Your task to perform on an android device: Go to internet settings Image 0: 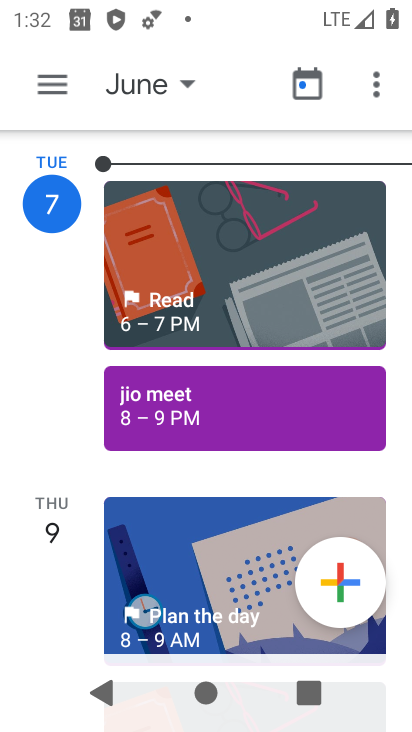
Step 0: press back button
Your task to perform on an android device: Go to internet settings Image 1: 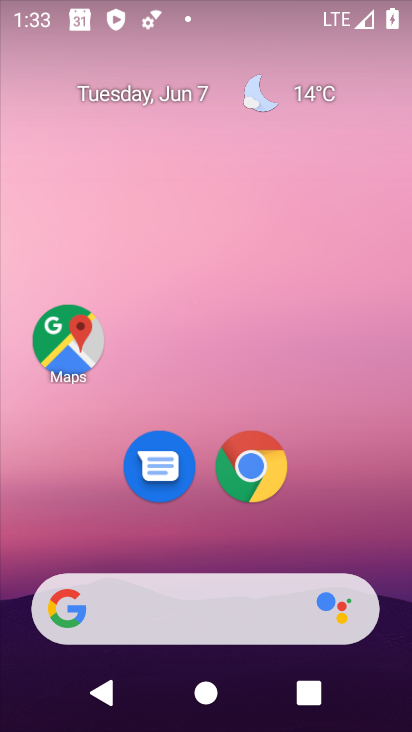
Step 1: drag from (165, 586) to (194, 90)
Your task to perform on an android device: Go to internet settings Image 2: 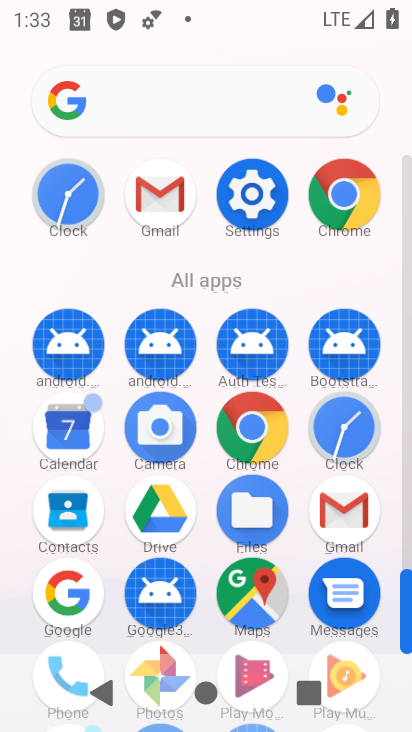
Step 2: click (258, 176)
Your task to perform on an android device: Go to internet settings Image 3: 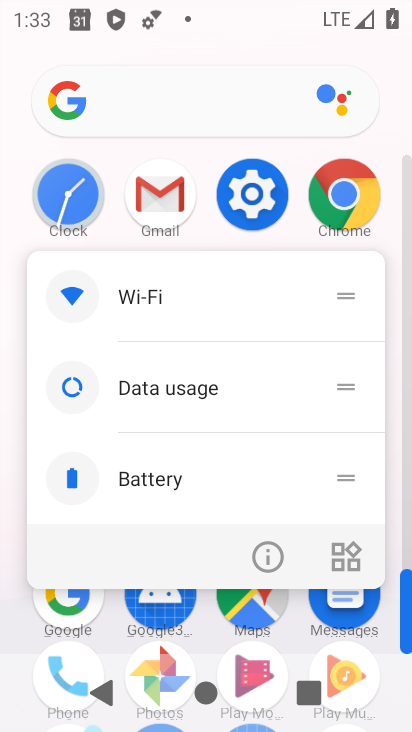
Step 3: click (250, 201)
Your task to perform on an android device: Go to internet settings Image 4: 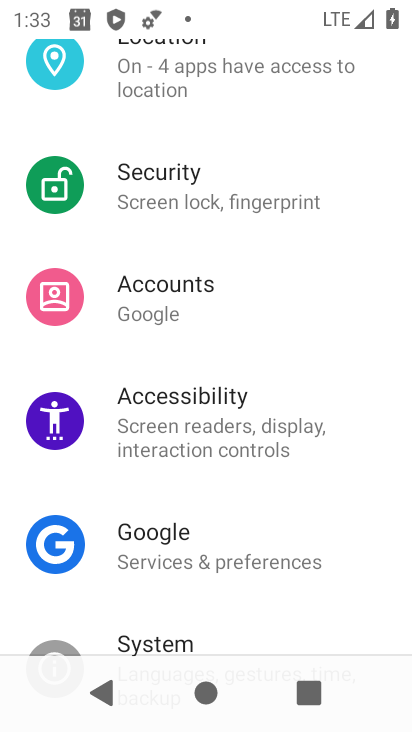
Step 4: drag from (234, 166) to (216, 647)
Your task to perform on an android device: Go to internet settings Image 5: 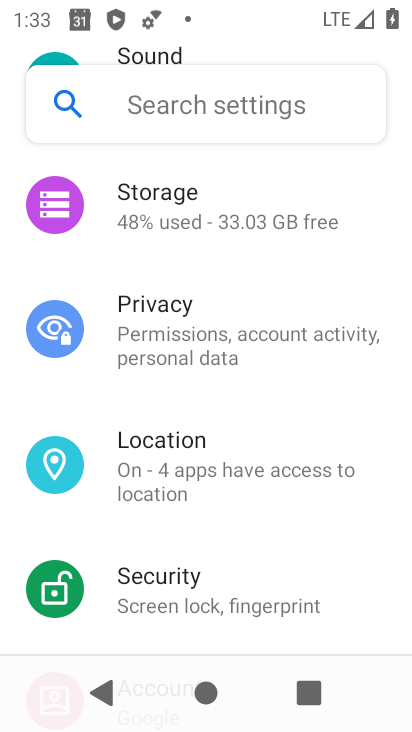
Step 5: drag from (215, 252) to (152, 684)
Your task to perform on an android device: Go to internet settings Image 6: 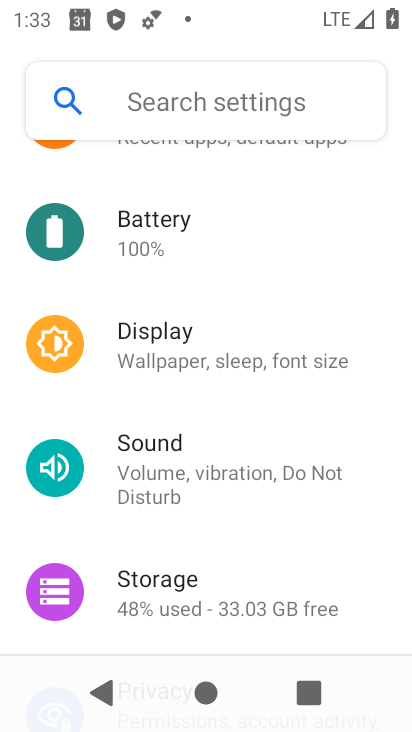
Step 6: drag from (200, 310) to (186, 720)
Your task to perform on an android device: Go to internet settings Image 7: 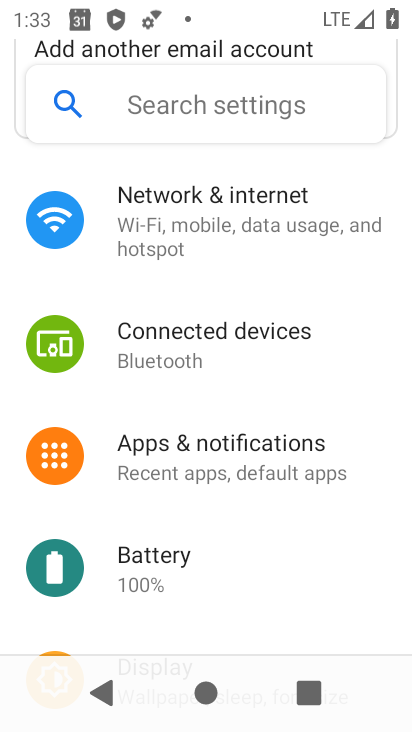
Step 7: click (199, 234)
Your task to perform on an android device: Go to internet settings Image 8: 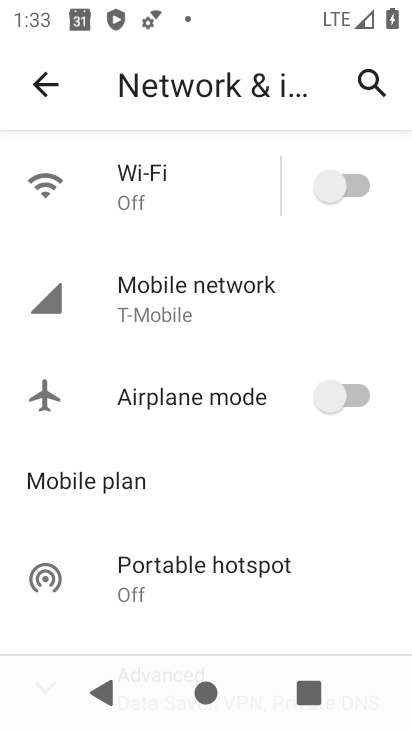
Step 8: task complete